Your task to perform on an android device: turn on location history Image 0: 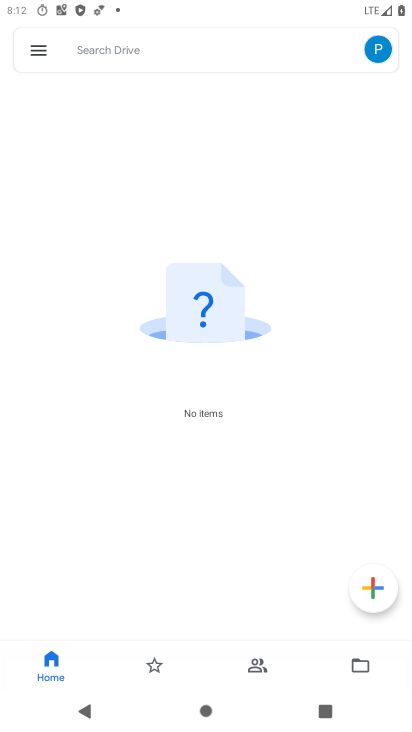
Step 0: press home button
Your task to perform on an android device: turn on location history Image 1: 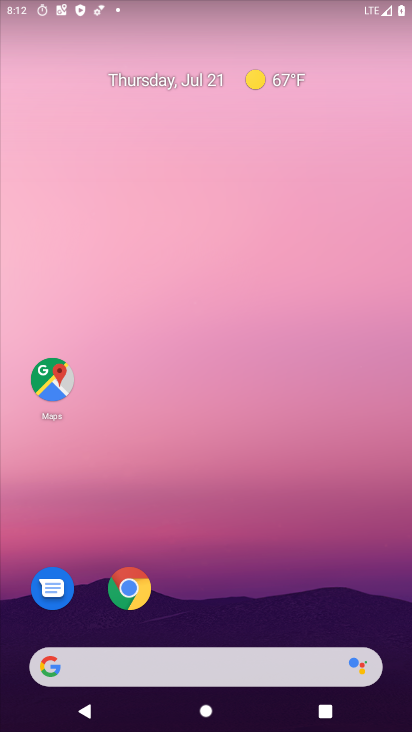
Step 1: drag from (163, 664) to (203, 413)
Your task to perform on an android device: turn on location history Image 2: 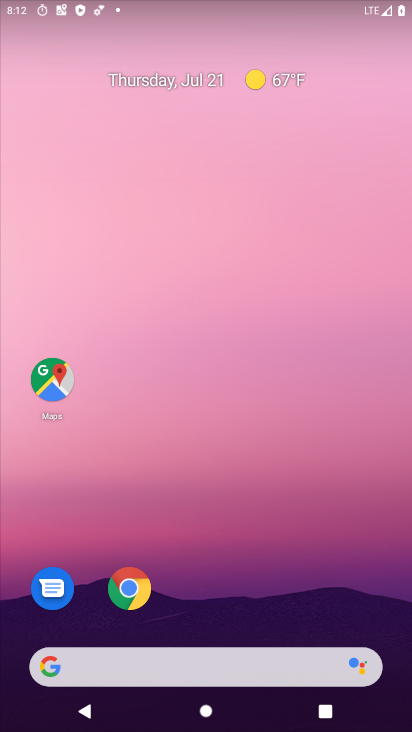
Step 2: drag from (156, 656) to (184, 429)
Your task to perform on an android device: turn on location history Image 3: 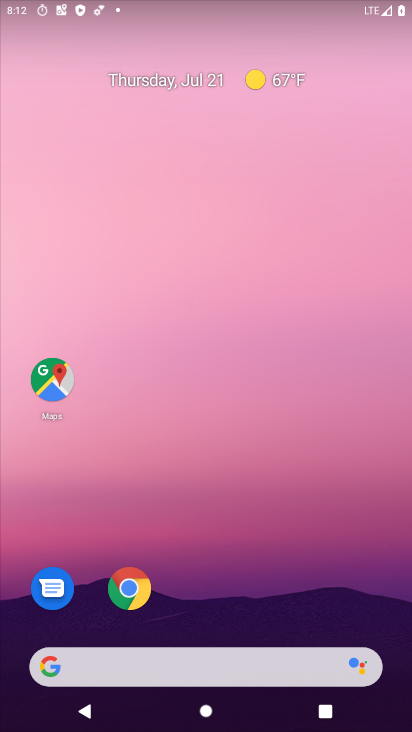
Step 3: drag from (245, 645) to (371, 128)
Your task to perform on an android device: turn on location history Image 4: 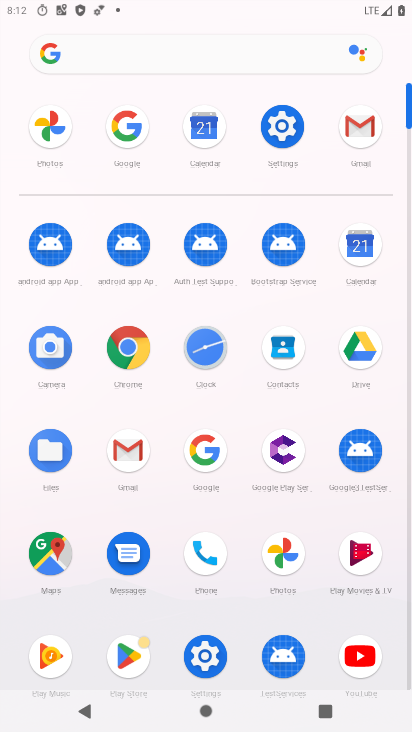
Step 4: click (203, 665)
Your task to perform on an android device: turn on location history Image 5: 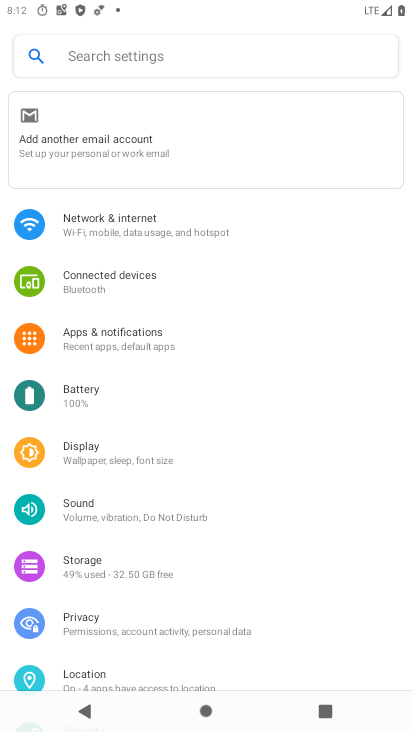
Step 5: click (111, 685)
Your task to perform on an android device: turn on location history Image 6: 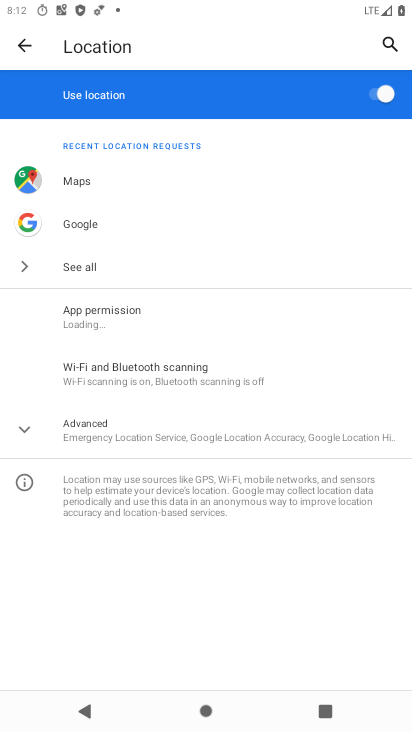
Step 6: click (104, 435)
Your task to perform on an android device: turn on location history Image 7: 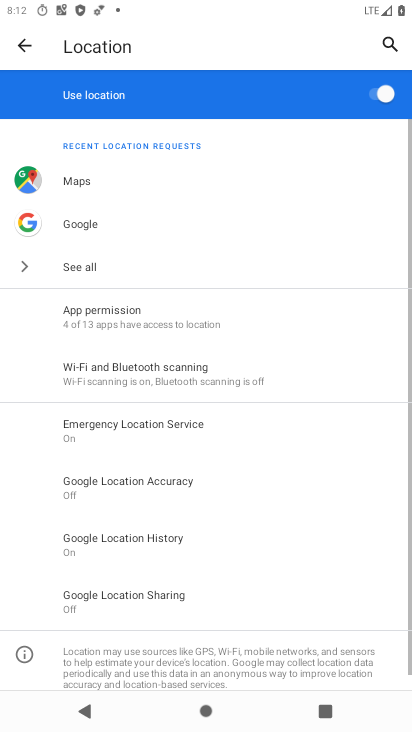
Step 7: click (104, 546)
Your task to perform on an android device: turn on location history Image 8: 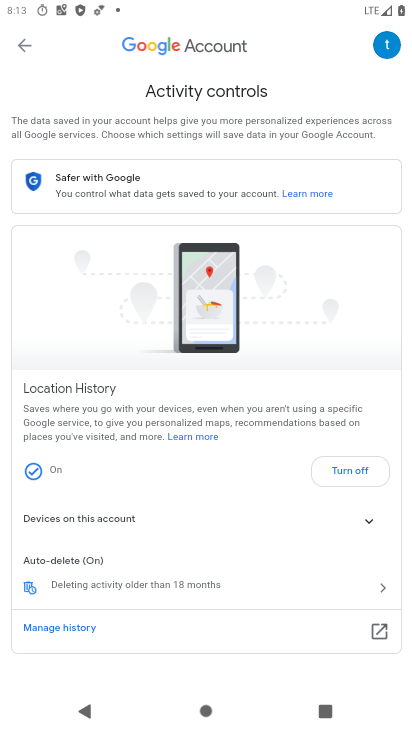
Step 8: task complete